Your task to perform on an android device: Search for pizza restaurants on Maps Image 0: 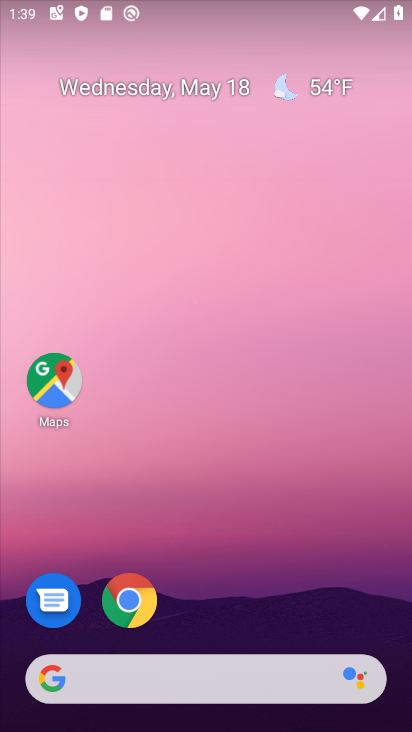
Step 0: click (66, 393)
Your task to perform on an android device: Search for pizza restaurants on Maps Image 1: 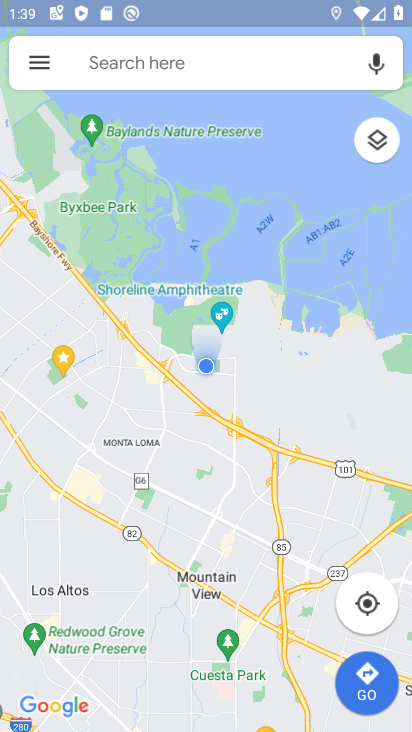
Step 1: click (158, 76)
Your task to perform on an android device: Search for pizza restaurants on Maps Image 2: 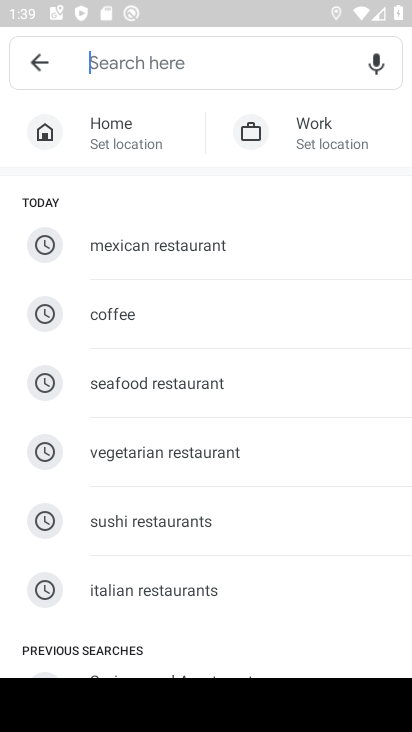
Step 2: drag from (162, 645) to (191, 233)
Your task to perform on an android device: Search for pizza restaurants on Maps Image 3: 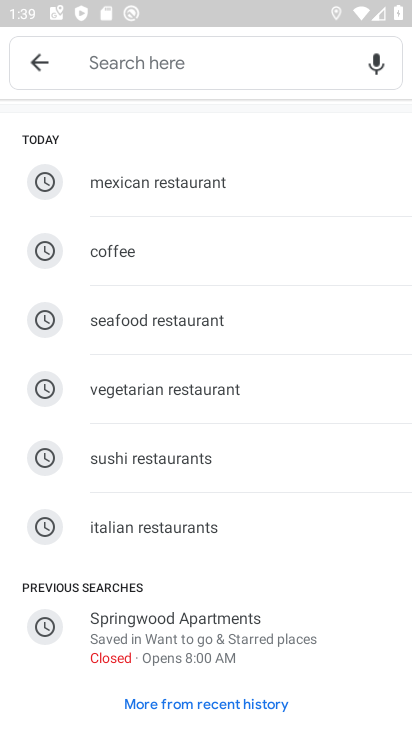
Step 3: click (181, 714)
Your task to perform on an android device: Search for pizza restaurants on Maps Image 4: 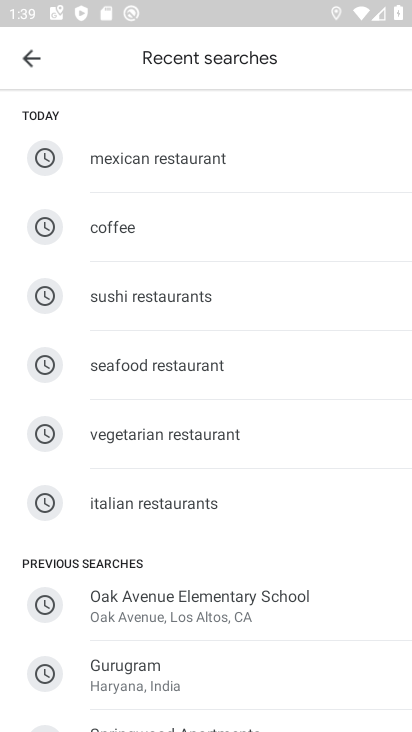
Step 4: drag from (183, 560) to (214, 273)
Your task to perform on an android device: Search for pizza restaurants on Maps Image 5: 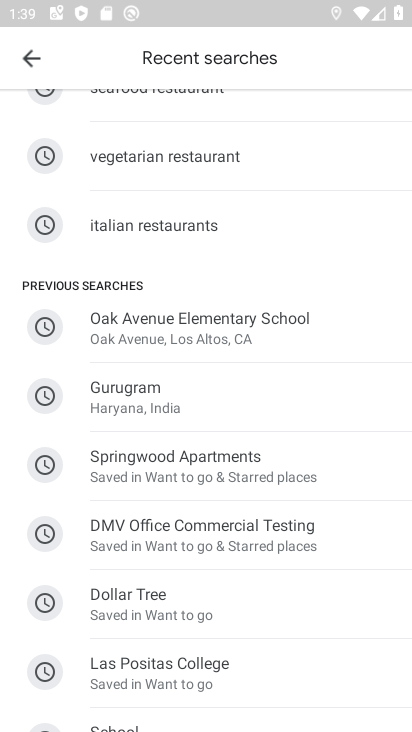
Step 5: drag from (222, 279) to (208, 690)
Your task to perform on an android device: Search for pizza restaurants on Maps Image 6: 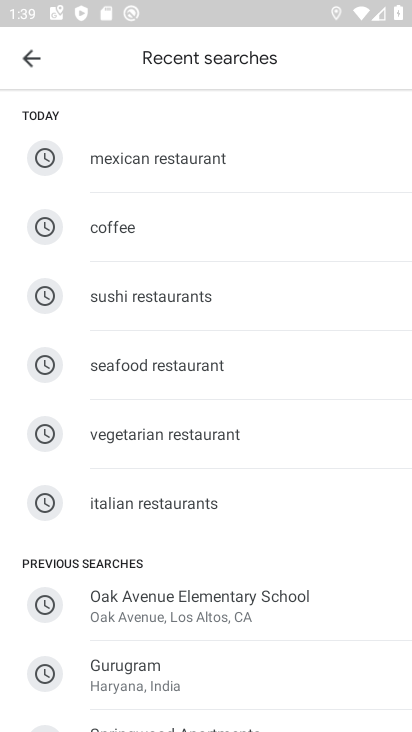
Step 6: click (49, 88)
Your task to perform on an android device: Search for pizza restaurants on Maps Image 7: 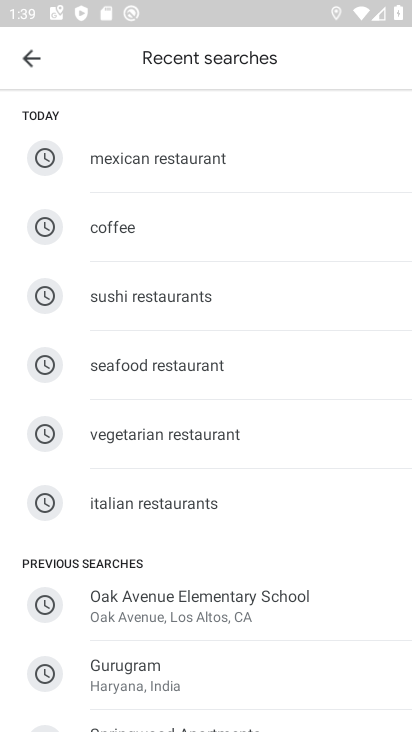
Step 7: click (41, 71)
Your task to perform on an android device: Search for pizza restaurants on Maps Image 8: 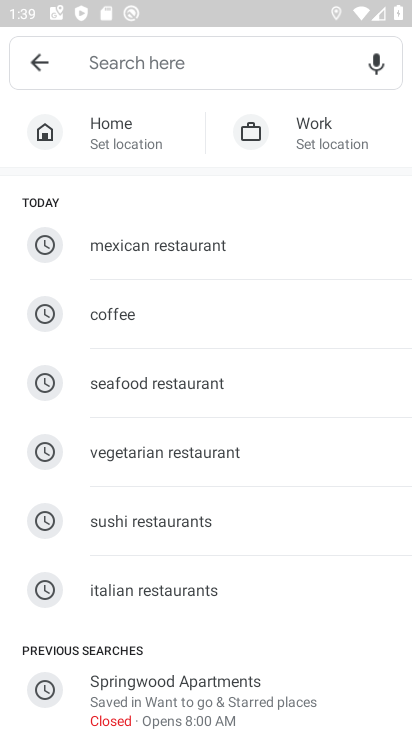
Step 8: click (201, 55)
Your task to perform on an android device: Search for pizza restaurants on Maps Image 9: 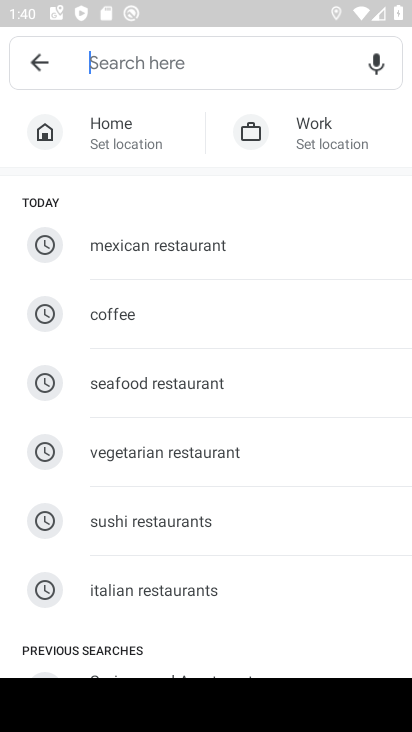
Step 9: type "pizza restaurant"
Your task to perform on an android device: Search for pizza restaurants on Maps Image 10: 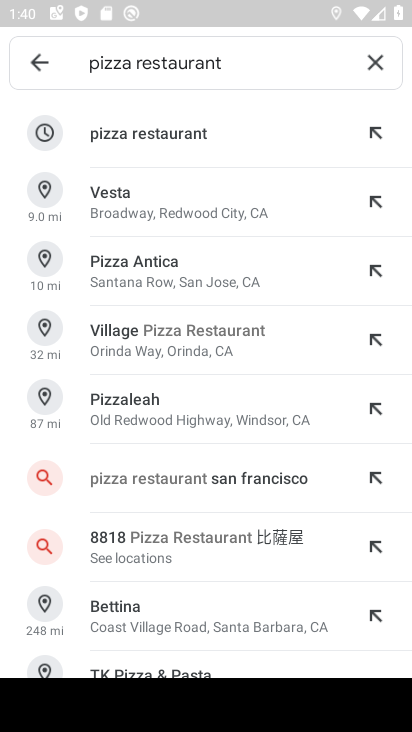
Step 10: click (135, 142)
Your task to perform on an android device: Search for pizza restaurants on Maps Image 11: 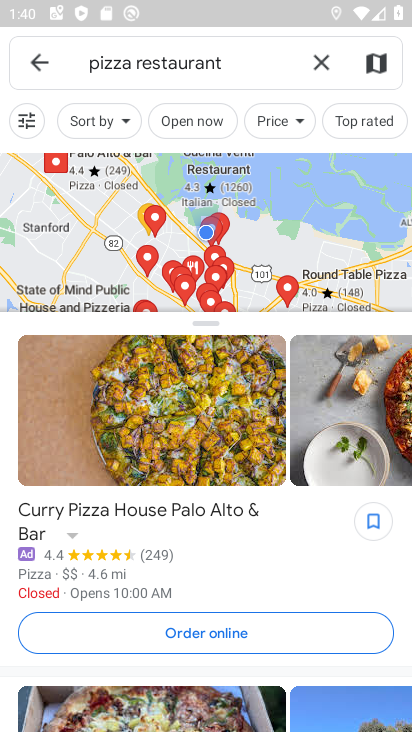
Step 11: task complete